Your task to perform on an android device: Go to display settings Image 0: 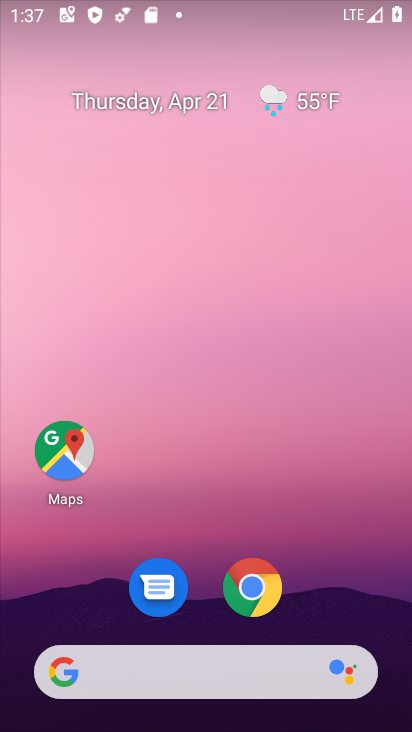
Step 0: drag from (400, 631) to (343, 229)
Your task to perform on an android device: Go to display settings Image 1: 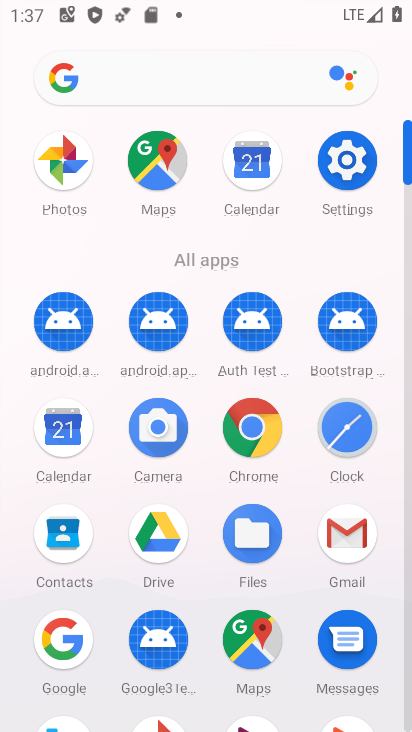
Step 1: click (405, 711)
Your task to perform on an android device: Go to display settings Image 2: 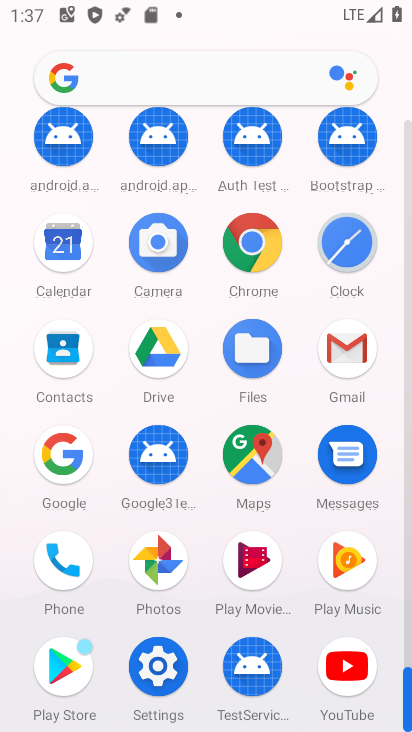
Step 2: click (155, 662)
Your task to perform on an android device: Go to display settings Image 3: 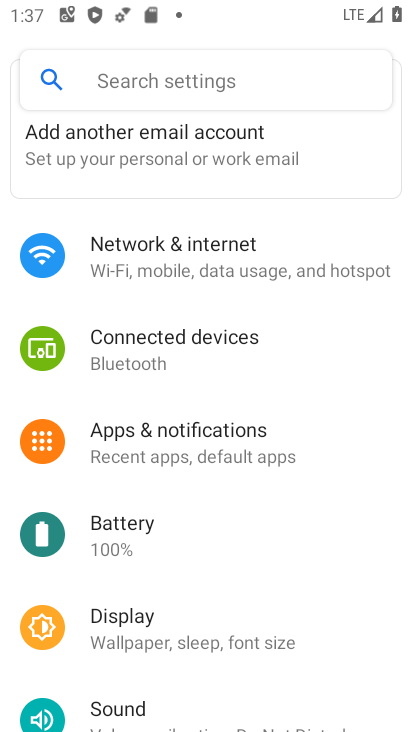
Step 3: click (124, 614)
Your task to perform on an android device: Go to display settings Image 4: 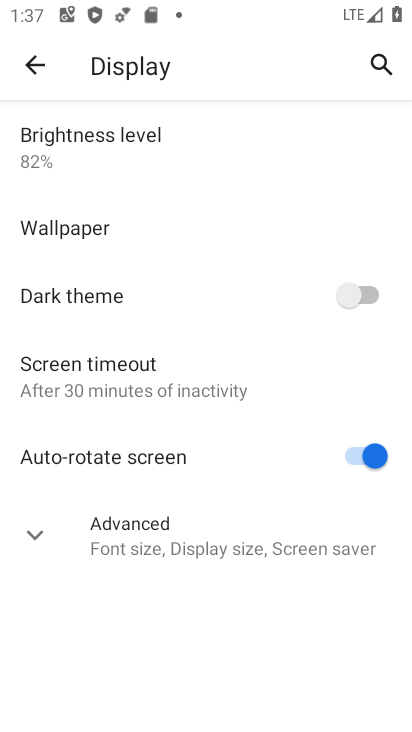
Step 4: click (30, 533)
Your task to perform on an android device: Go to display settings Image 5: 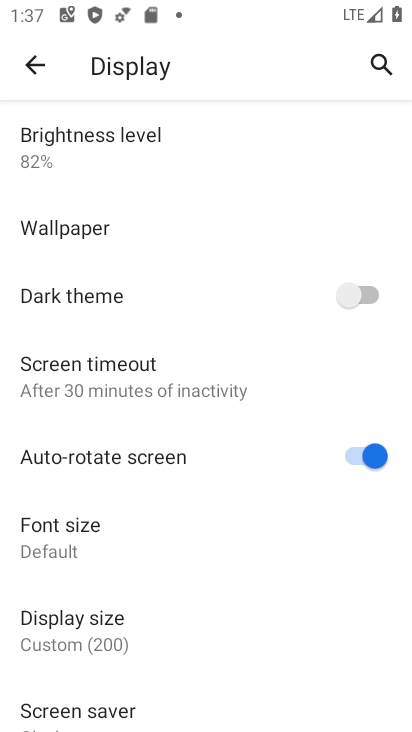
Step 5: task complete